Your task to perform on an android device: When is my next meeting? Image 0: 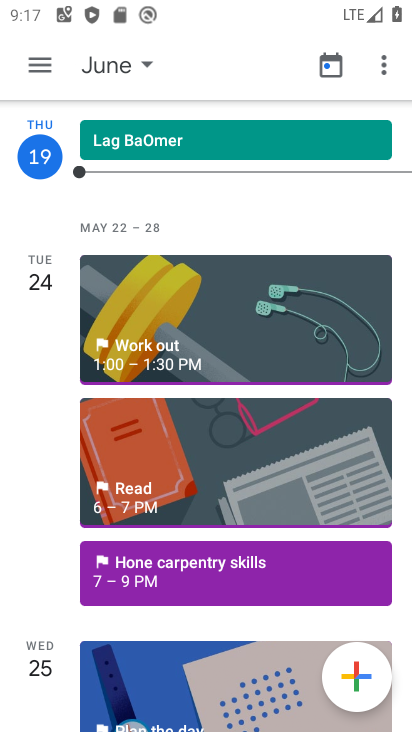
Step 0: press home button
Your task to perform on an android device: When is my next meeting? Image 1: 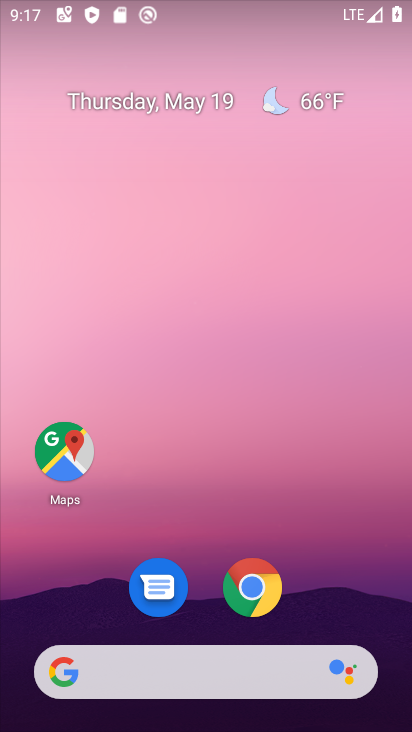
Step 1: drag from (240, 699) to (129, 195)
Your task to perform on an android device: When is my next meeting? Image 2: 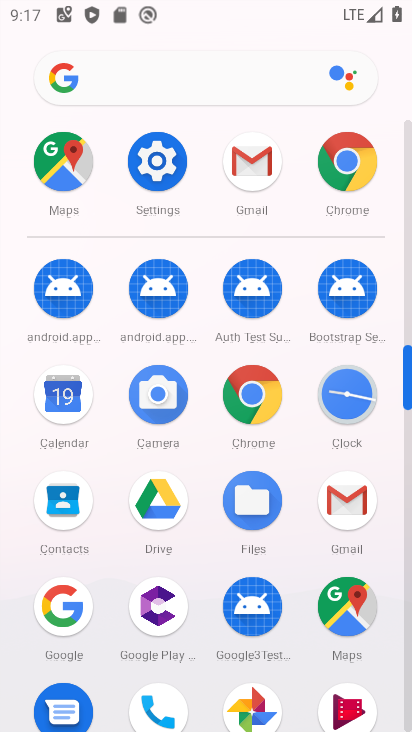
Step 2: click (67, 401)
Your task to perform on an android device: When is my next meeting? Image 3: 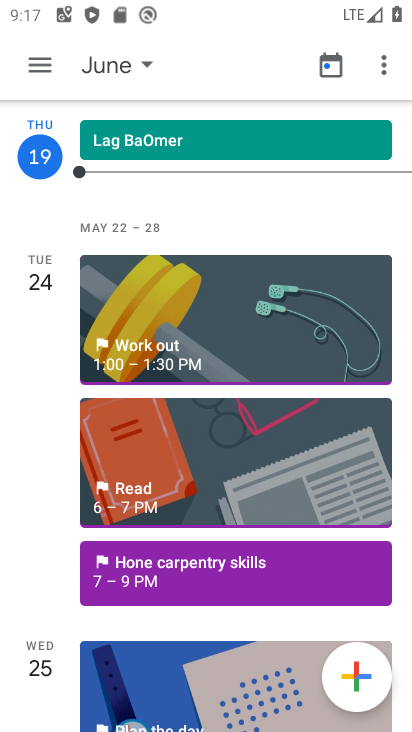
Step 3: task complete